Your task to perform on an android device: open app "Life360: Find Family & Friends" Image 0: 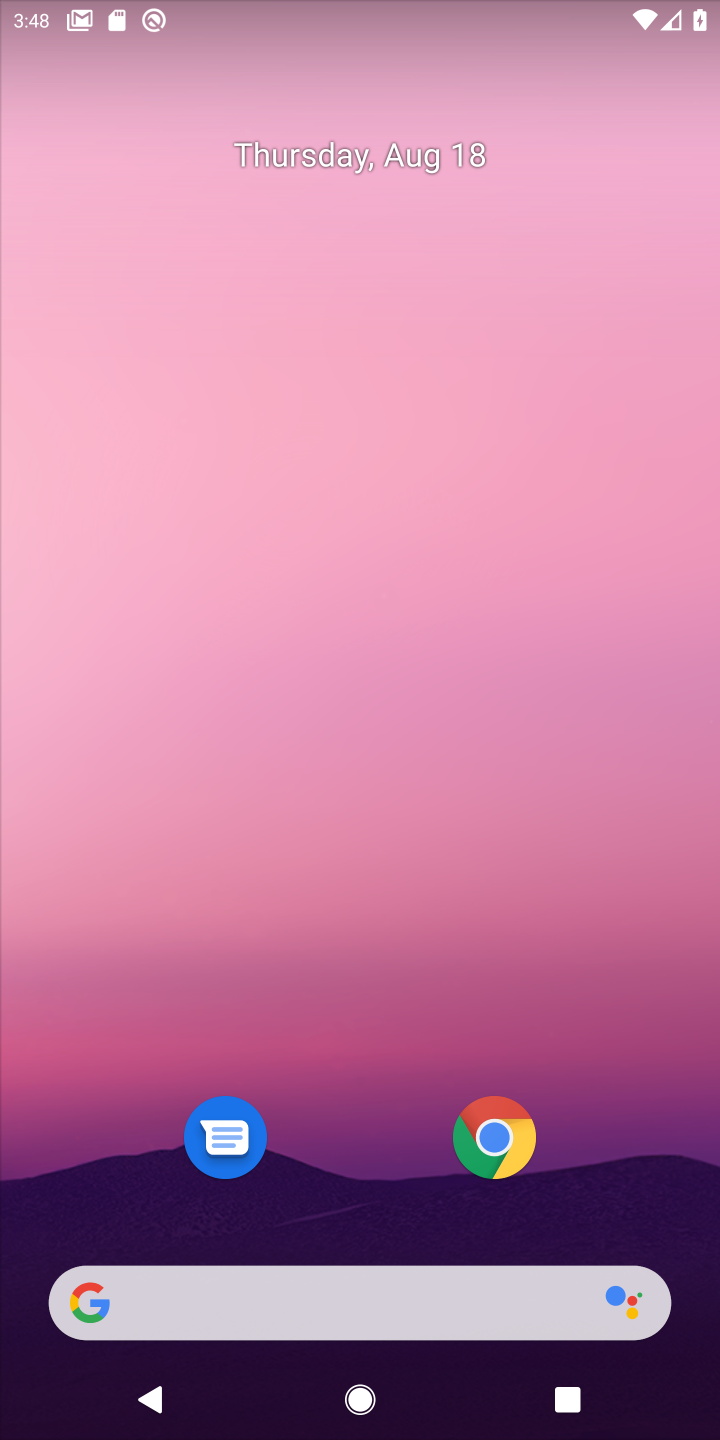
Step 0: drag from (336, 1087) to (330, 464)
Your task to perform on an android device: open app "Life360: Find Family & Friends" Image 1: 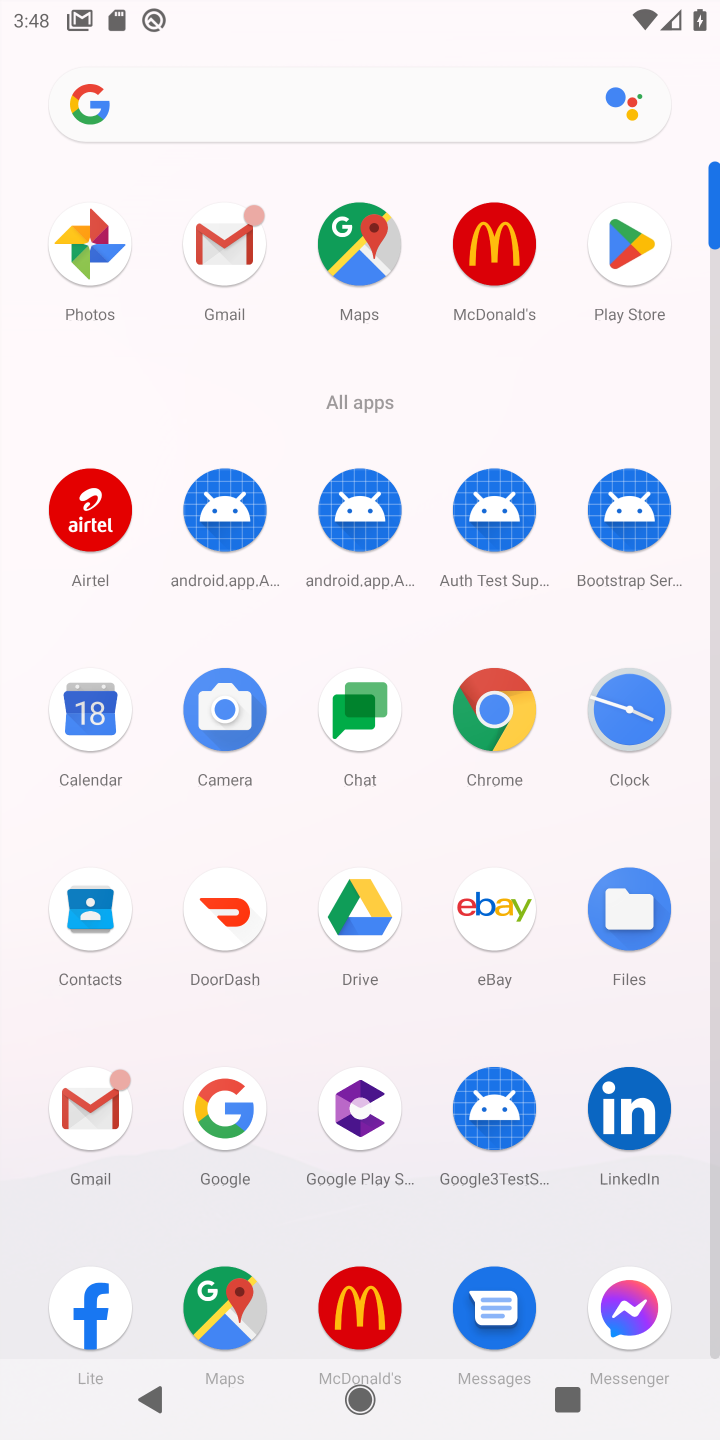
Step 1: click (619, 256)
Your task to perform on an android device: open app "Life360: Find Family & Friends" Image 2: 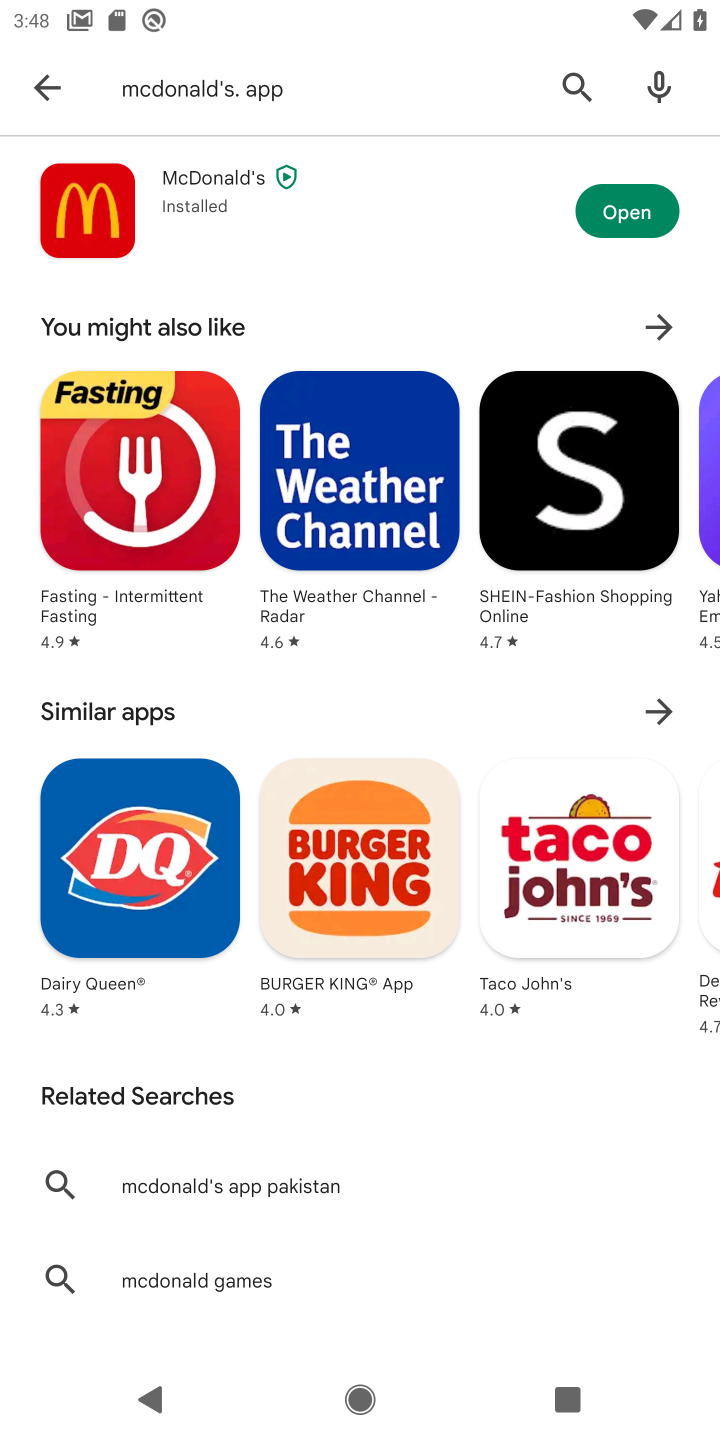
Step 2: click (44, 82)
Your task to perform on an android device: open app "Life360: Find Family & Friends" Image 3: 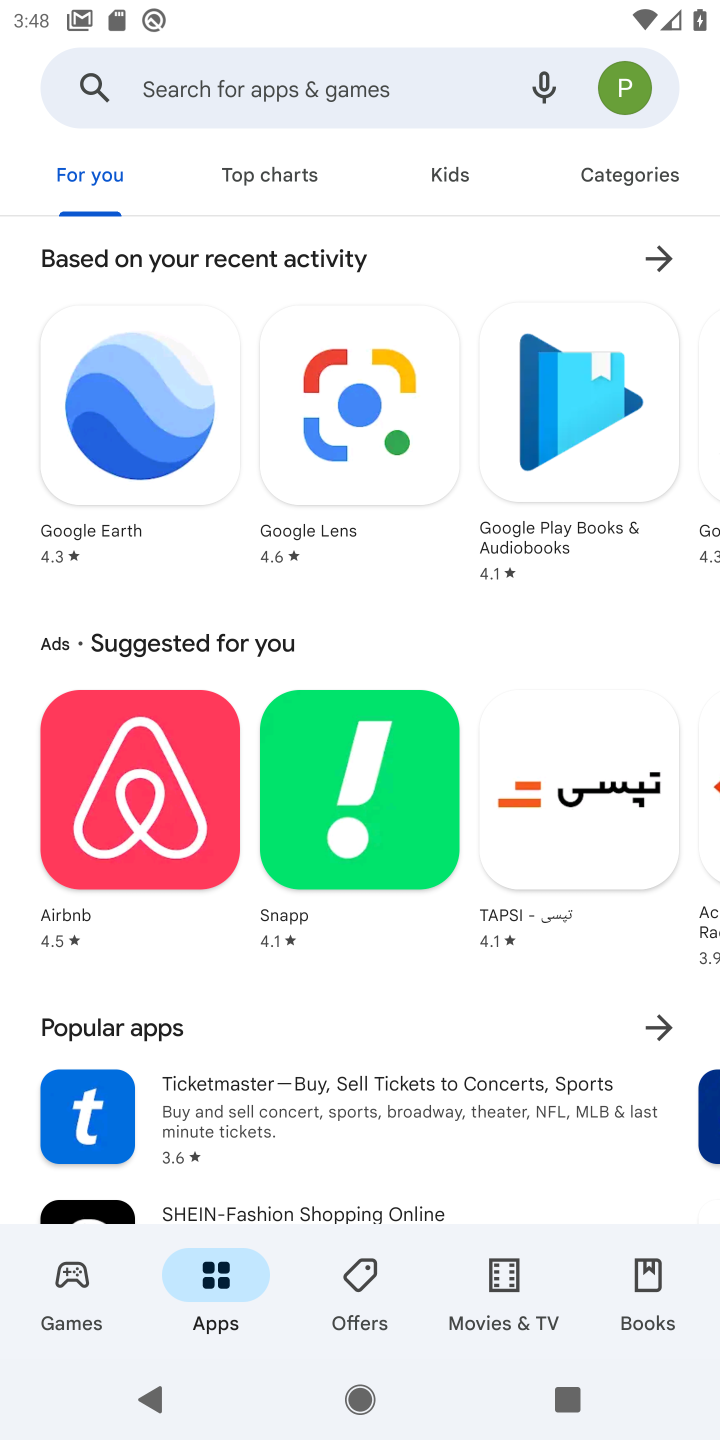
Step 3: click (283, 79)
Your task to perform on an android device: open app "Life360: Find Family & Friends" Image 4: 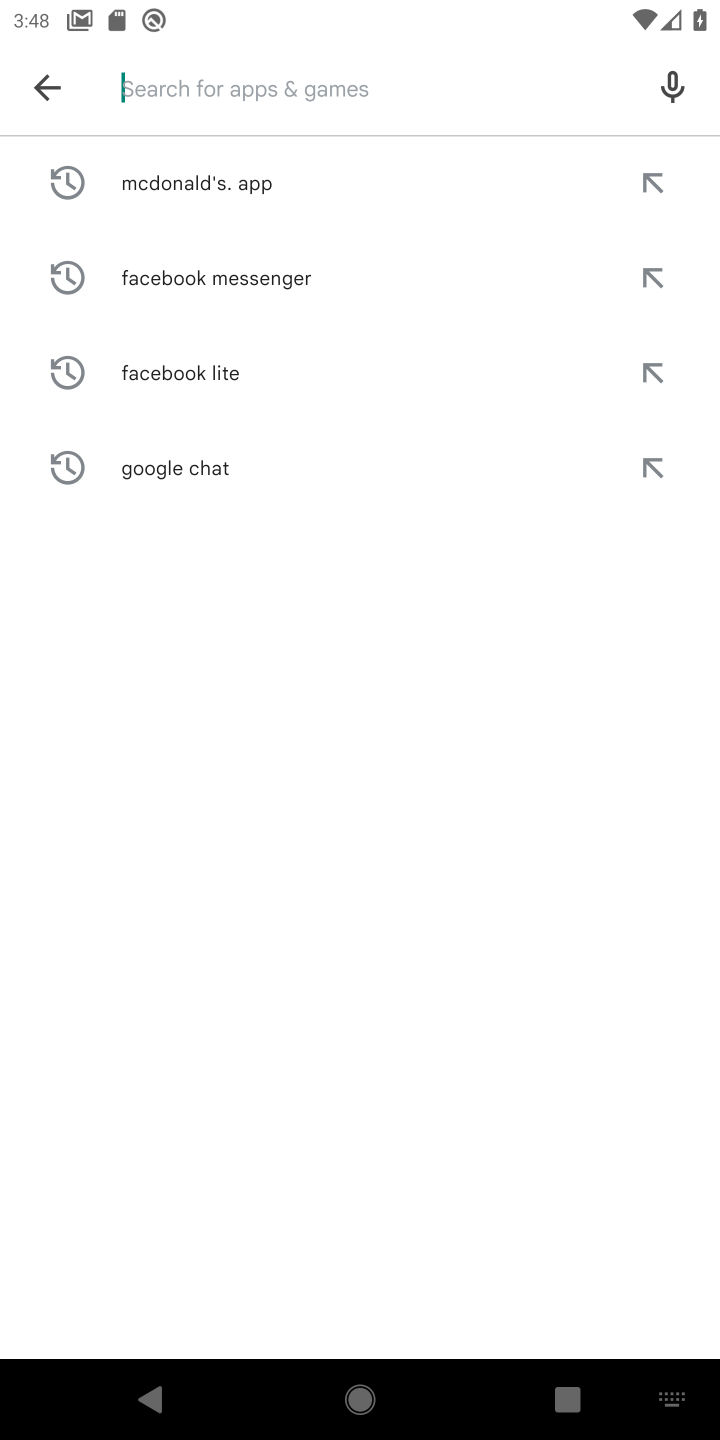
Step 4: type "Life360: Find Family & Friends"
Your task to perform on an android device: open app "Life360: Find Family & Friends" Image 5: 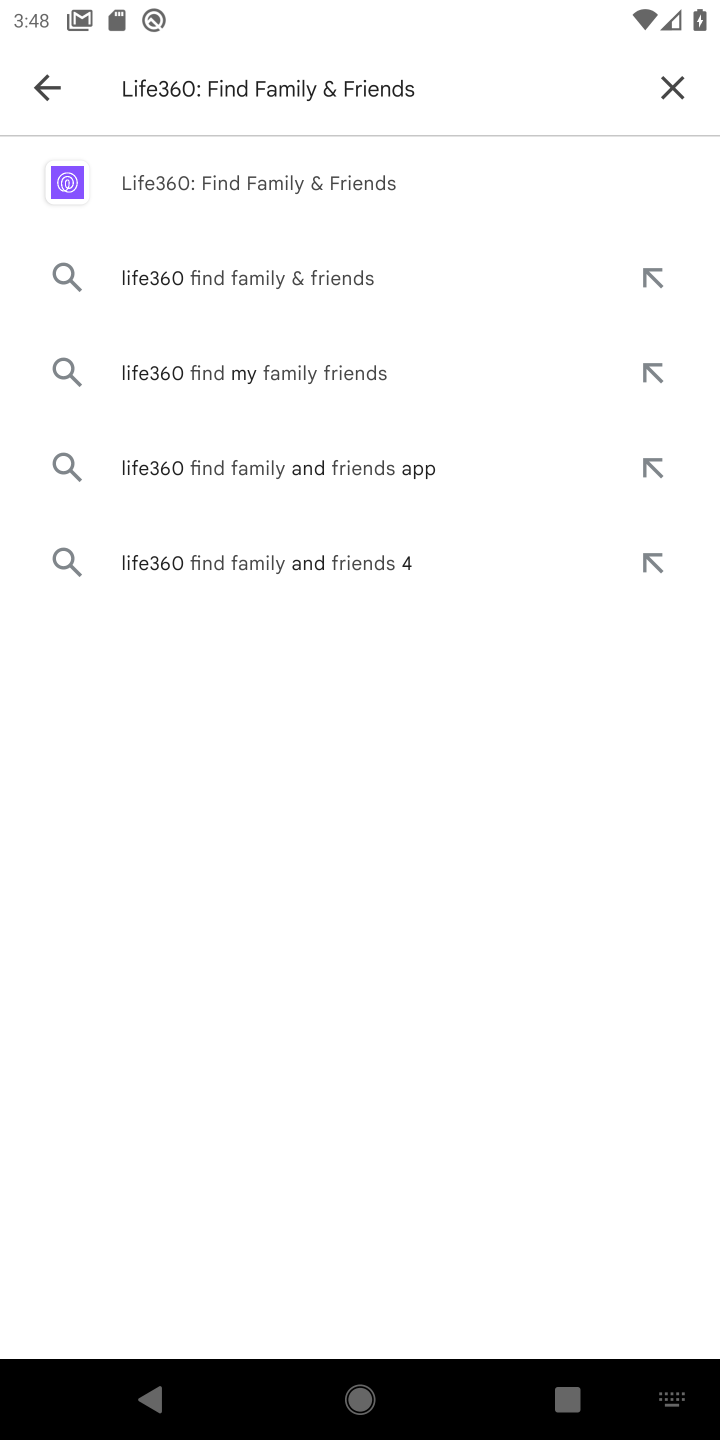
Step 5: click (239, 177)
Your task to perform on an android device: open app "Life360: Find Family & Friends" Image 6: 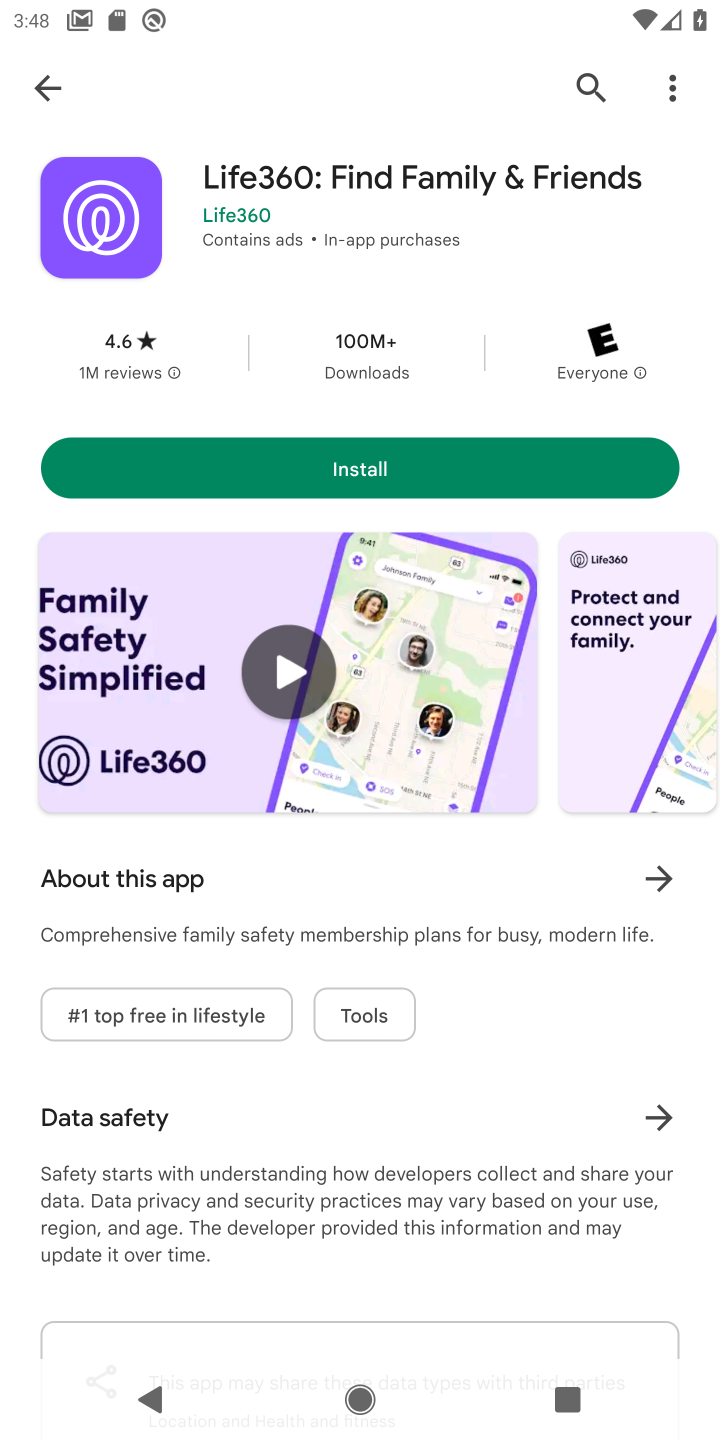
Step 6: click (362, 473)
Your task to perform on an android device: open app "Life360: Find Family & Friends" Image 7: 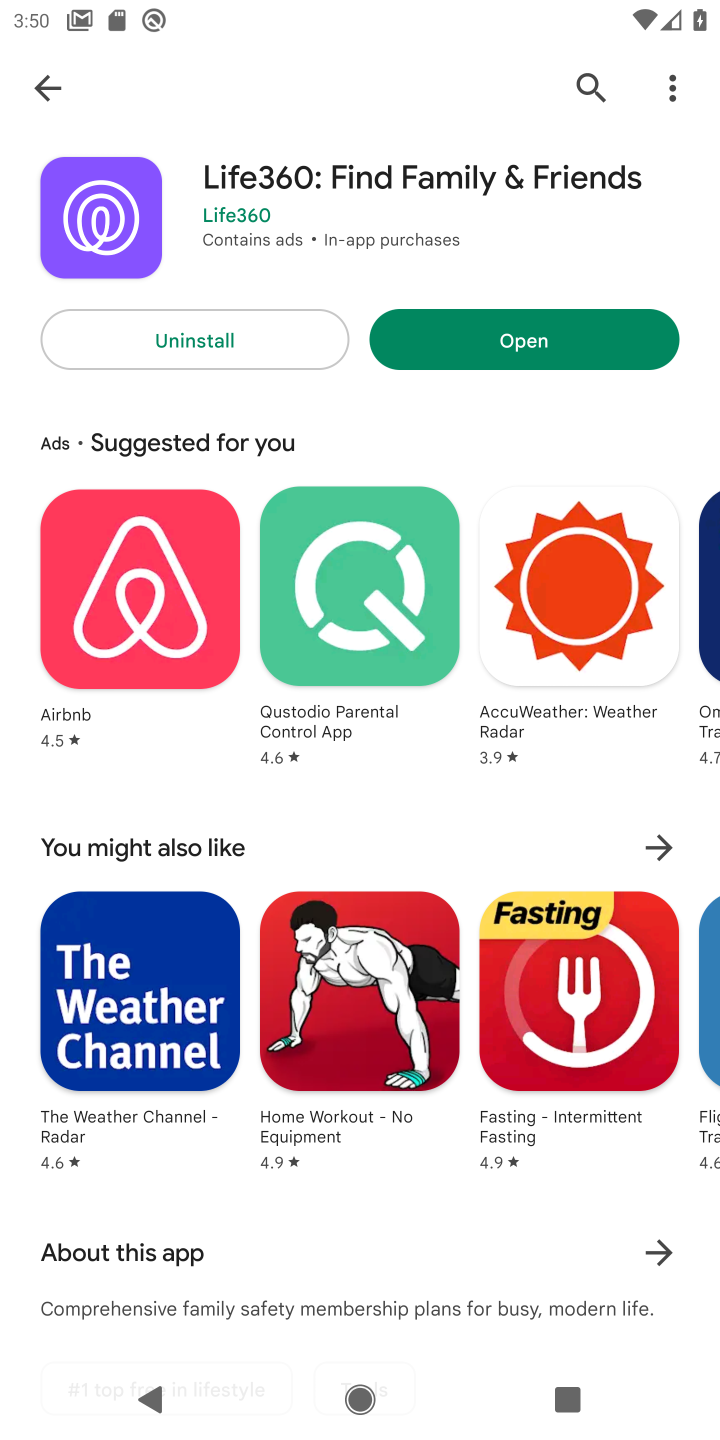
Step 7: click (448, 346)
Your task to perform on an android device: open app "Life360: Find Family & Friends" Image 8: 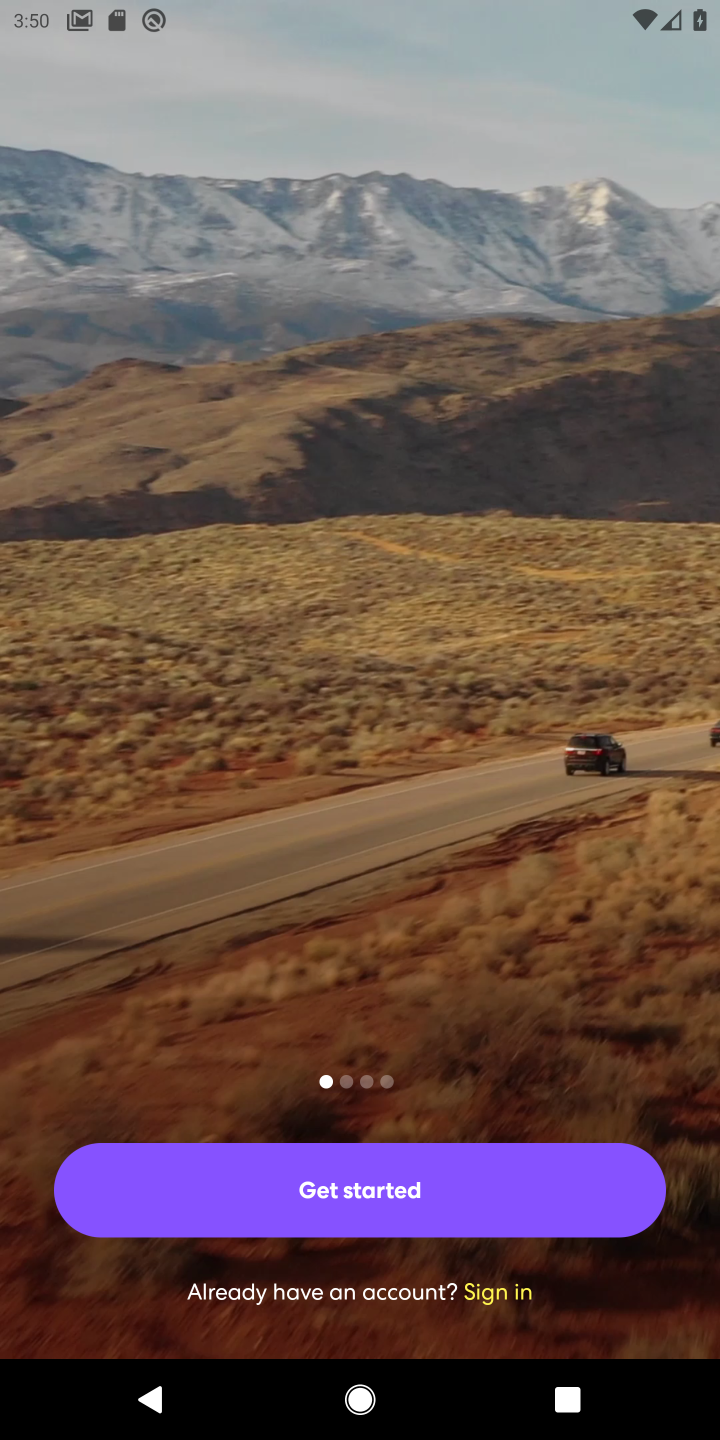
Step 8: task complete